Your task to perform on an android device: Go to sound settings Image 0: 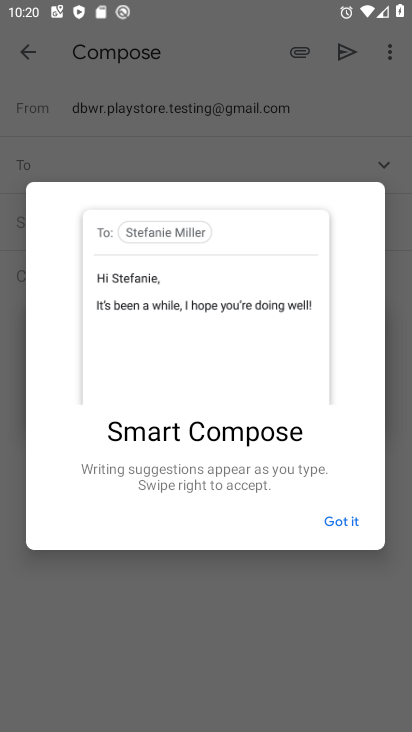
Step 0: drag from (323, 552) to (389, 132)
Your task to perform on an android device: Go to sound settings Image 1: 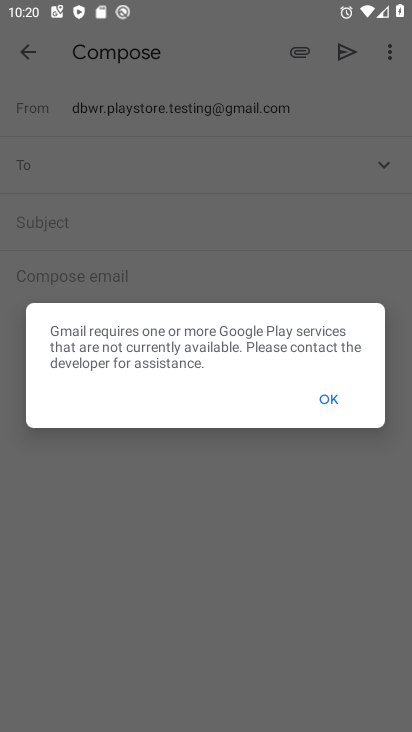
Step 1: press home button
Your task to perform on an android device: Go to sound settings Image 2: 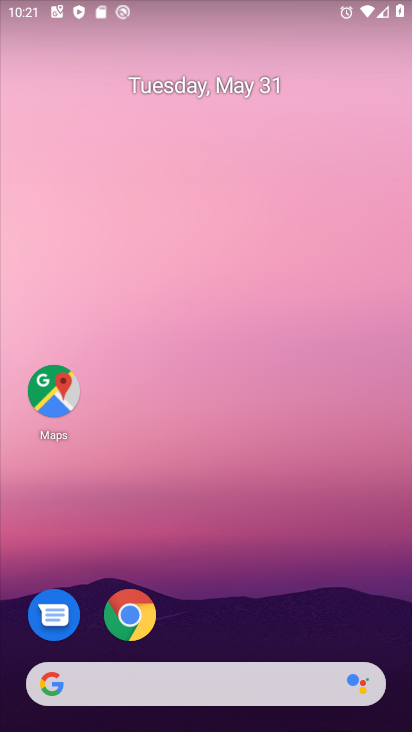
Step 2: drag from (352, 436) to (398, 50)
Your task to perform on an android device: Go to sound settings Image 3: 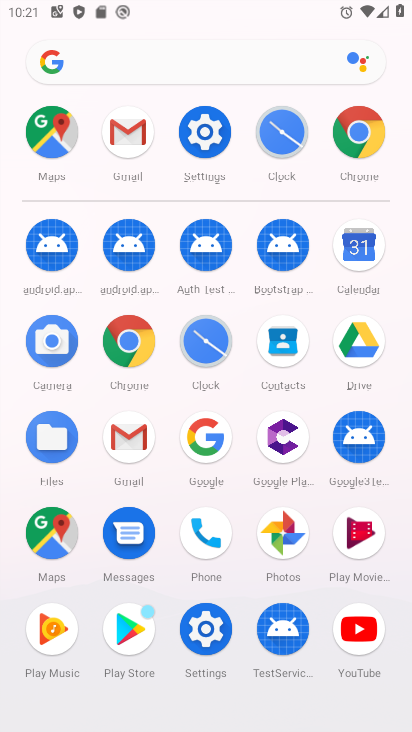
Step 3: click (219, 134)
Your task to perform on an android device: Go to sound settings Image 4: 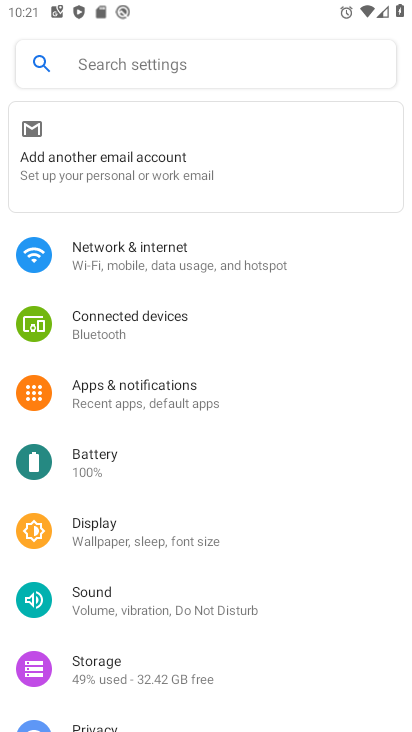
Step 4: click (145, 609)
Your task to perform on an android device: Go to sound settings Image 5: 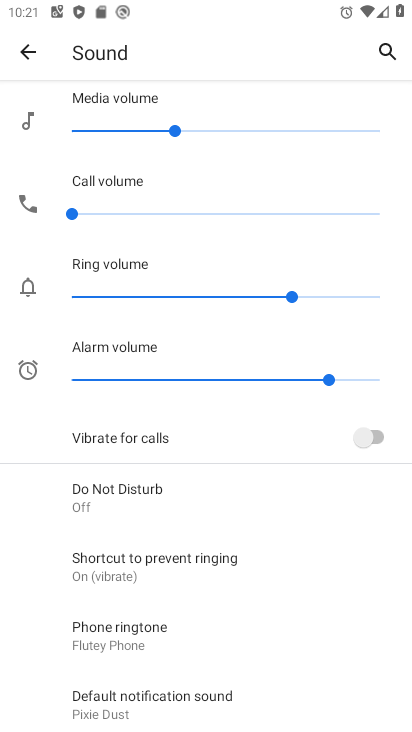
Step 5: task complete